Your task to perform on an android device: make emails show in primary in the gmail app Image 0: 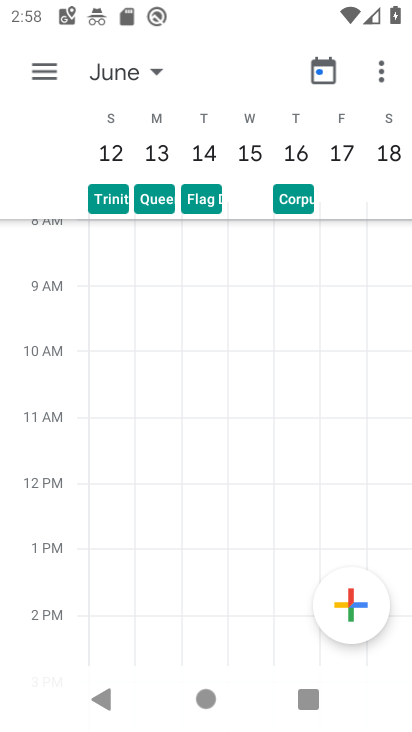
Step 0: press home button
Your task to perform on an android device: make emails show in primary in the gmail app Image 1: 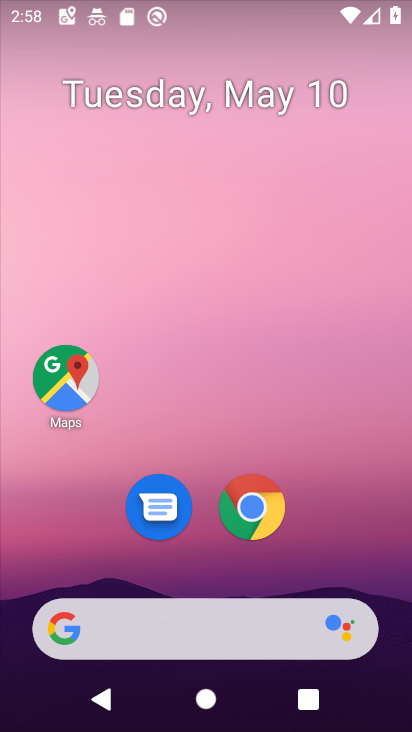
Step 1: drag from (183, 557) to (222, 183)
Your task to perform on an android device: make emails show in primary in the gmail app Image 2: 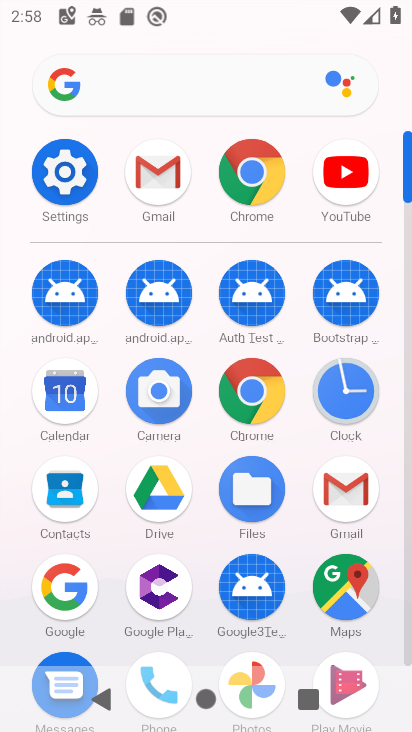
Step 2: click (147, 191)
Your task to perform on an android device: make emails show in primary in the gmail app Image 3: 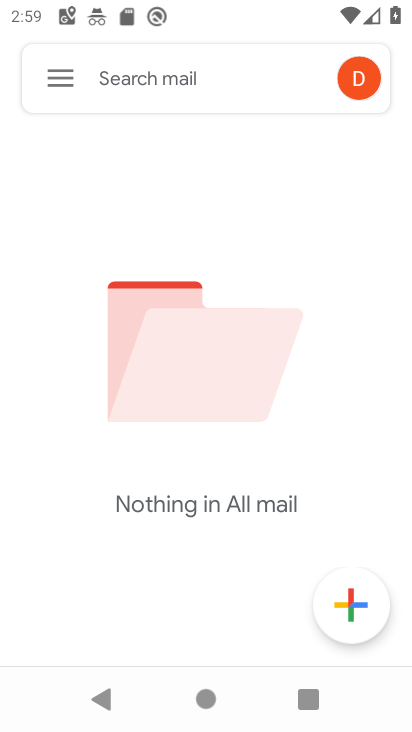
Step 3: click (66, 70)
Your task to perform on an android device: make emails show in primary in the gmail app Image 4: 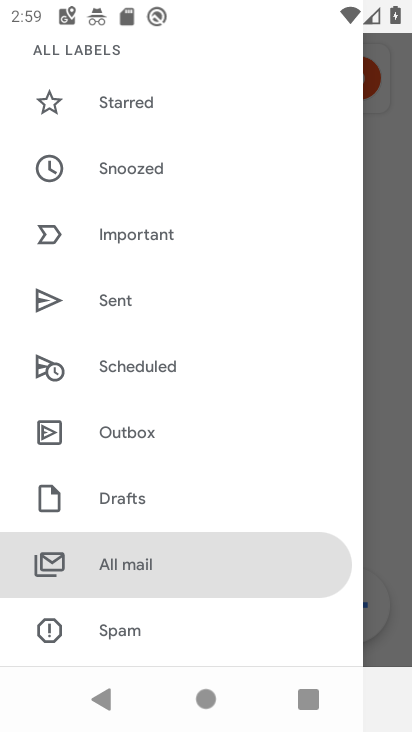
Step 4: drag from (144, 621) to (223, 199)
Your task to perform on an android device: make emails show in primary in the gmail app Image 5: 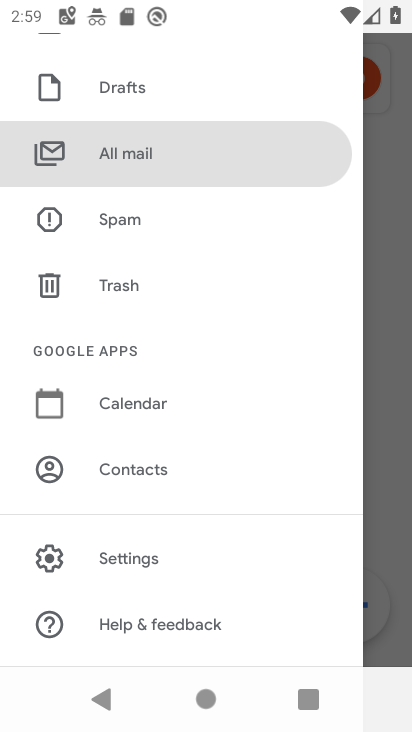
Step 5: click (133, 561)
Your task to perform on an android device: make emails show in primary in the gmail app Image 6: 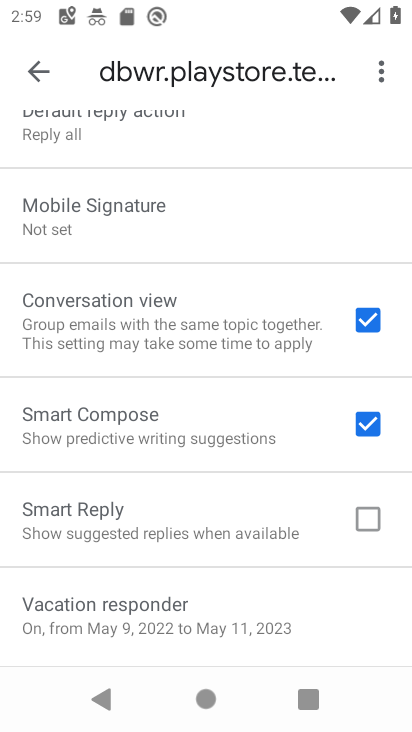
Step 6: drag from (228, 540) to (286, 148)
Your task to perform on an android device: make emails show in primary in the gmail app Image 7: 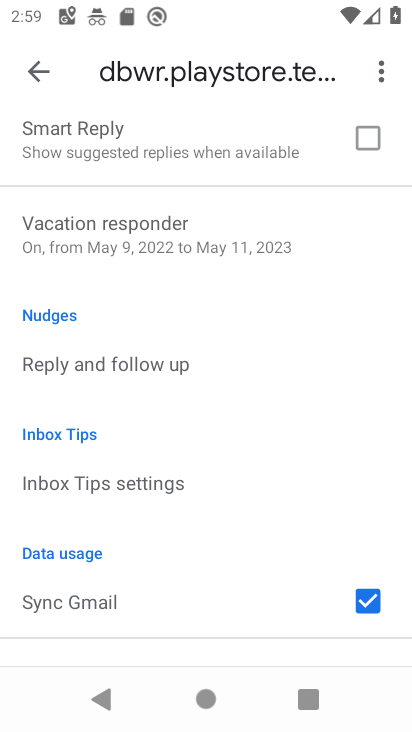
Step 7: drag from (173, 546) to (236, 256)
Your task to perform on an android device: make emails show in primary in the gmail app Image 8: 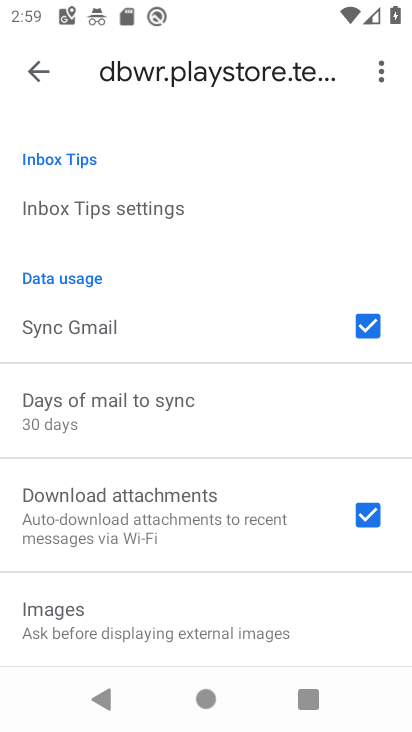
Step 8: drag from (206, 233) to (229, 464)
Your task to perform on an android device: make emails show in primary in the gmail app Image 9: 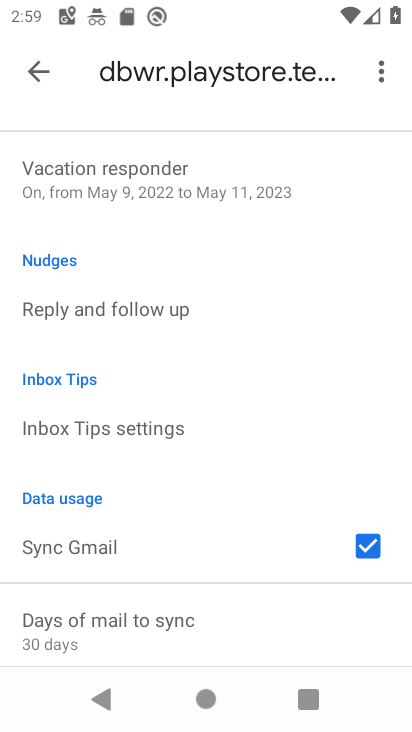
Step 9: drag from (155, 264) to (117, 610)
Your task to perform on an android device: make emails show in primary in the gmail app Image 10: 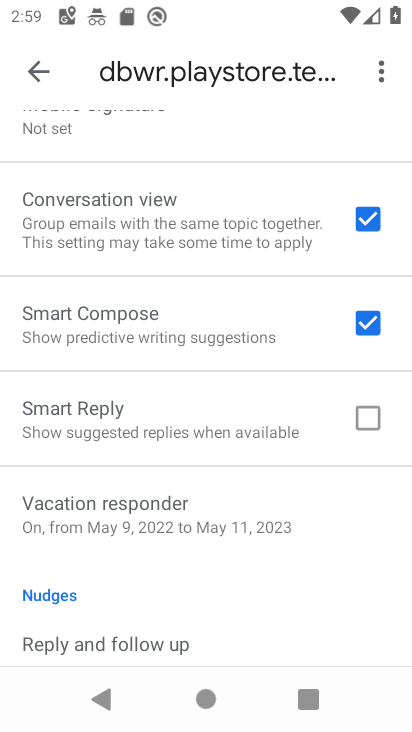
Step 10: drag from (100, 152) to (111, 544)
Your task to perform on an android device: make emails show in primary in the gmail app Image 11: 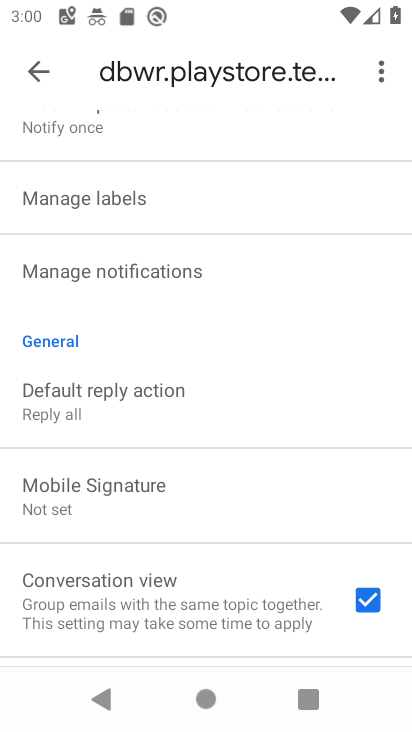
Step 11: drag from (130, 186) to (122, 307)
Your task to perform on an android device: make emails show in primary in the gmail app Image 12: 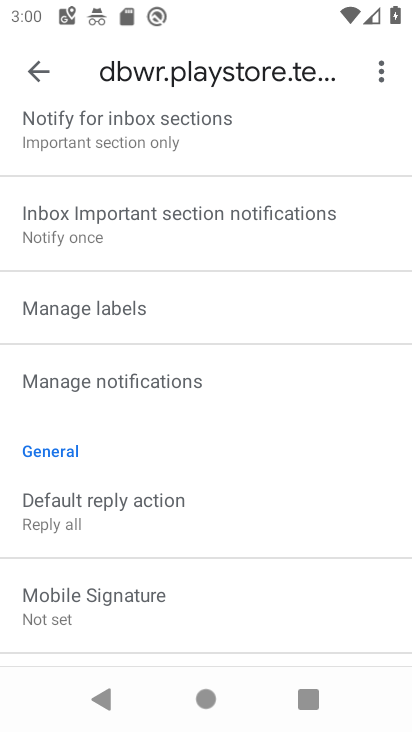
Step 12: drag from (164, 152) to (163, 391)
Your task to perform on an android device: make emails show in primary in the gmail app Image 13: 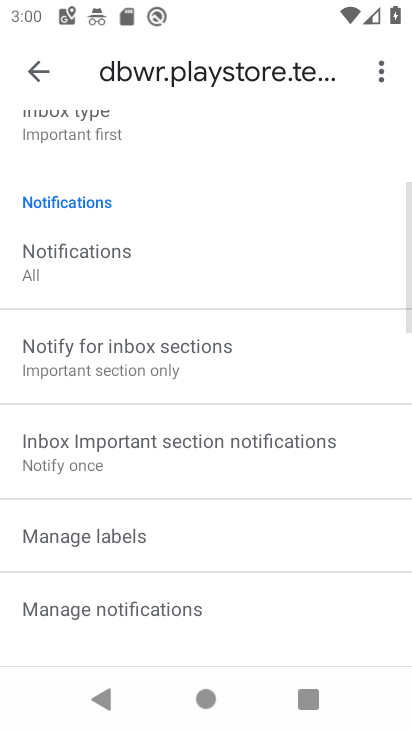
Step 13: drag from (126, 168) to (132, 375)
Your task to perform on an android device: make emails show in primary in the gmail app Image 14: 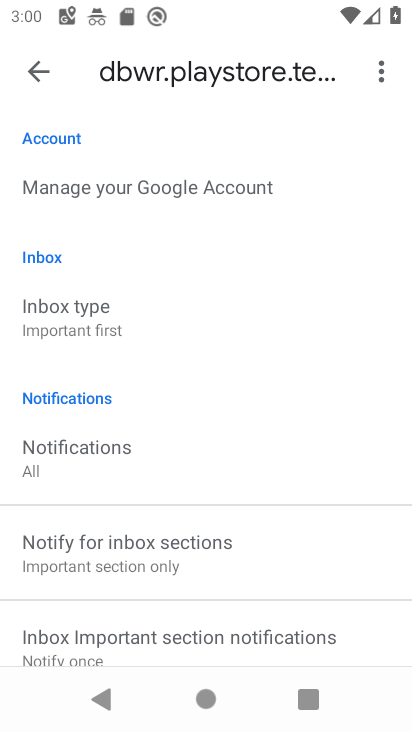
Step 14: click (82, 314)
Your task to perform on an android device: make emails show in primary in the gmail app Image 15: 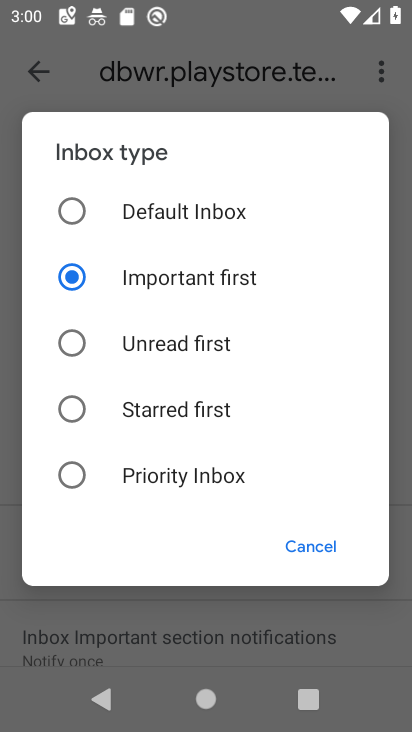
Step 15: click (149, 228)
Your task to perform on an android device: make emails show in primary in the gmail app Image 16: 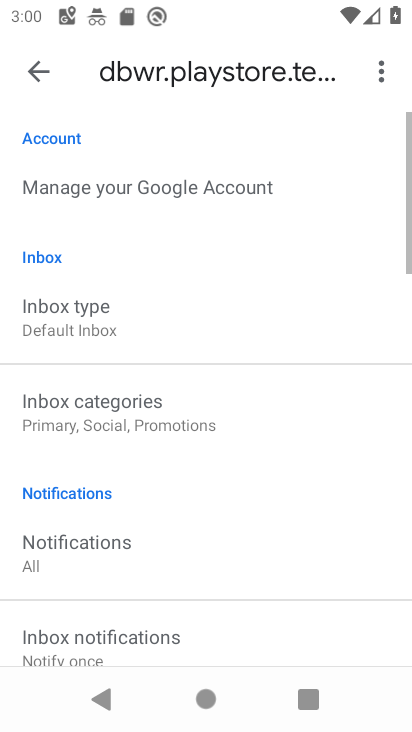
Step 16: click (44, 64)
Your task to perform on an android device: make emails show in primary in the gmail app Image 17: 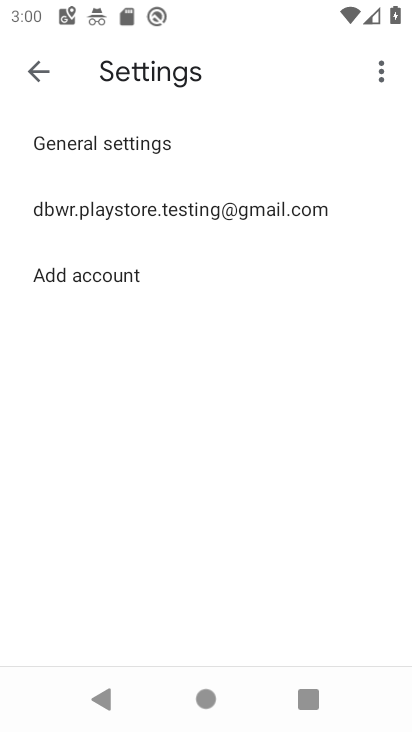
Step 17: click (43, 71)
Your task to perform on an android device: make emails show in primary in the gmail app Image 18: 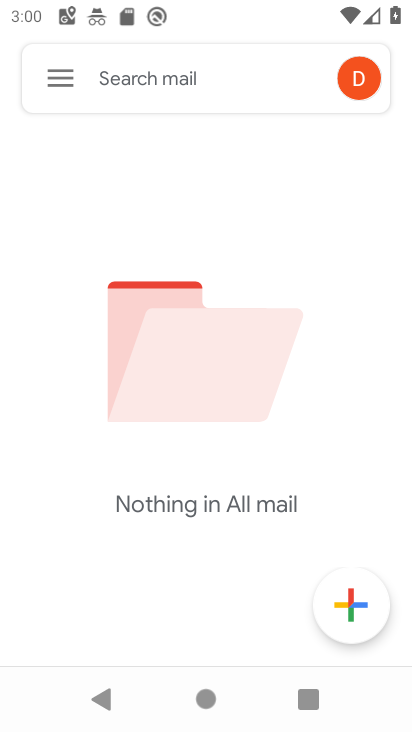
Step 18: click (54, 77)
Your task to perform on an android device: make emails show in primary in the gmail app Image 19: 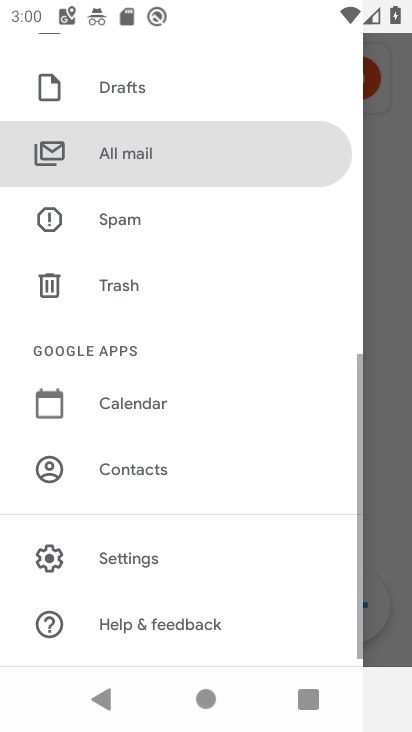
Step 19: drag from (154, 171) to (186, 563)
Your task to perform on an android device: make emails show in primary in the gmail app Image 20: 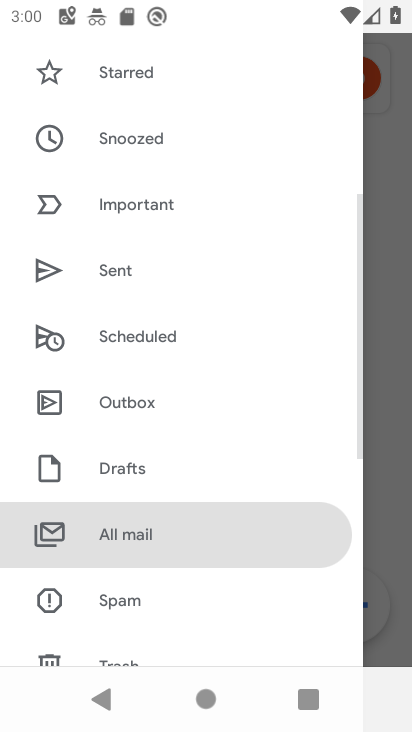
Step 20: drag from (223, 159) to (265, 579)
Your task to perform on an android device: make emails show in primary in the gmail app Image 21: 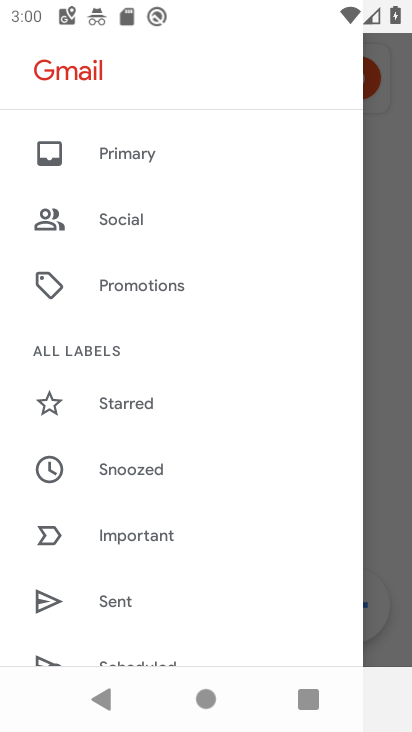
Step 21: click (126, 150)
Your task to perform on an android device: make emails show in primary in the gmail app Image 22: 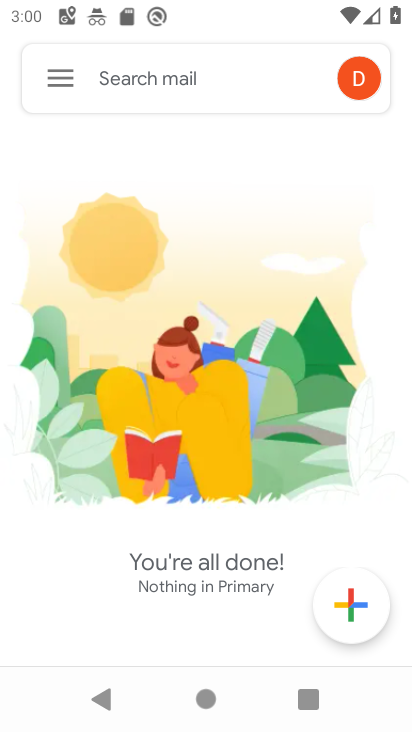
Step 22: task complete